Your task to perform on an android device: check android version Image 0: 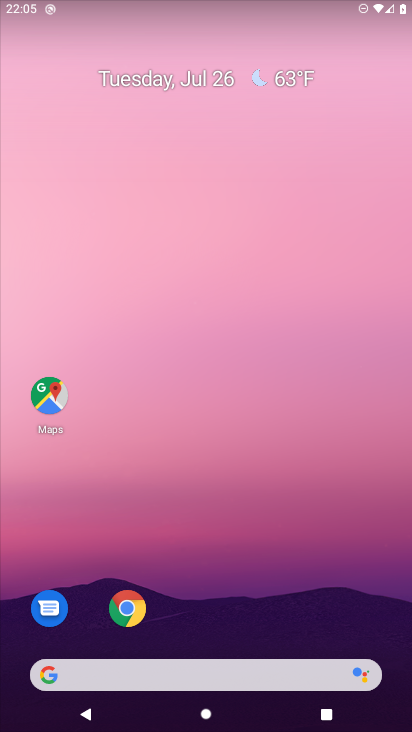
Step 0: drag from (172, 344) to (215, 209)
Your task to perform on an android device: check android version Image 1: 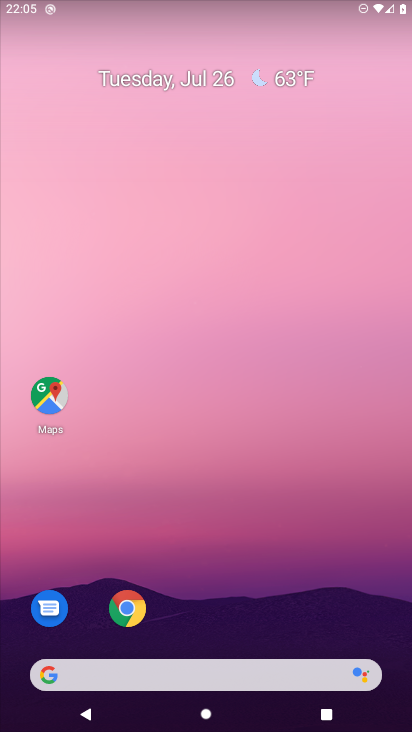
Step 1: drag from (32, 724) to (226, 169)
Your task to perform on an android device: check android version Image 2: 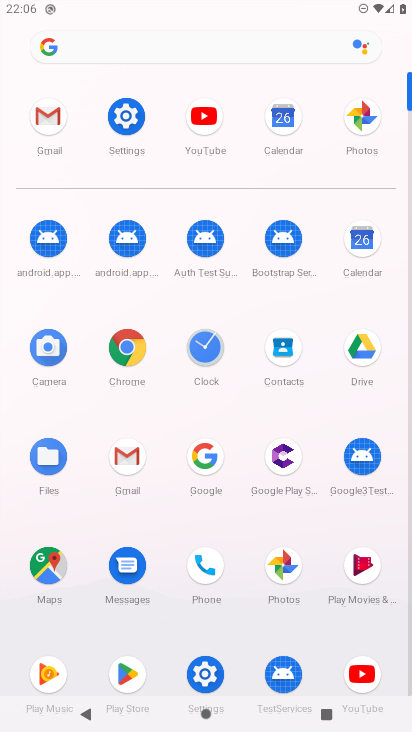
Step 2: click (207, 674)
Your task to perform on an android device: check android version Image 3: 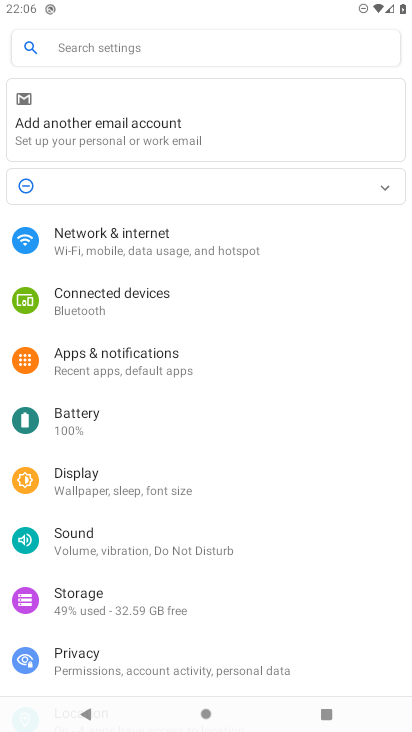
Step 3: task complete